Your task to perform on an android device: Go to Reddit.com Image 0: 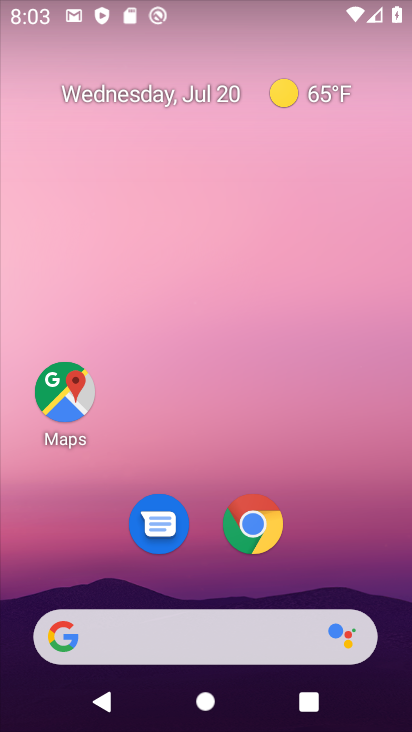
Step 0: click (265, 631)
Your task to perform on an android device: Go to Reddit.com Image 1: 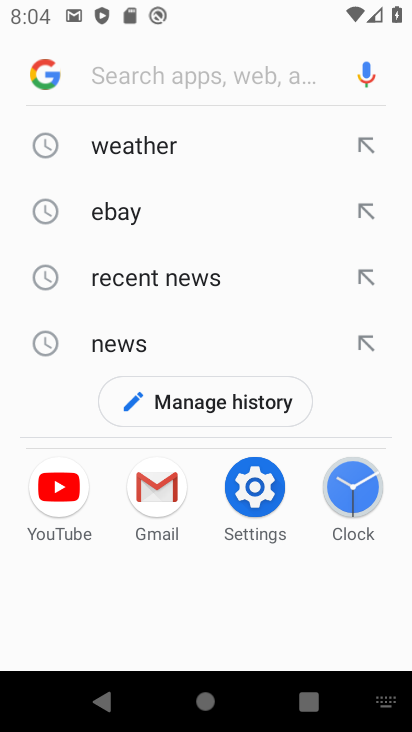
Step 1: type "reddit.com"
Your task to perform on an android device: Go to Reddit.com Image 2: 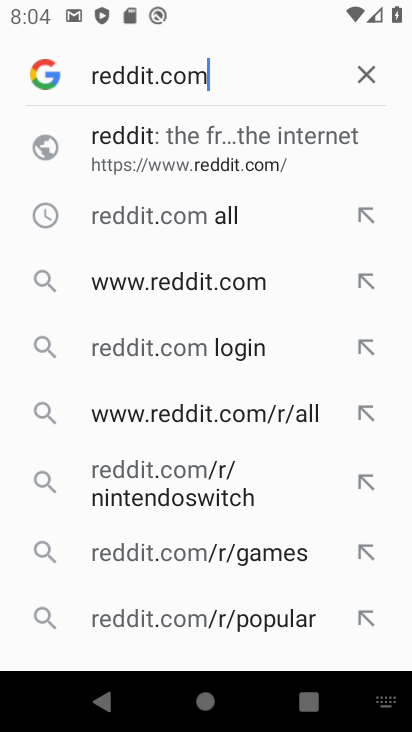
Step 2: click (240, 285)
Your task to perform on an android device: Go to Reddit.com Image 3: 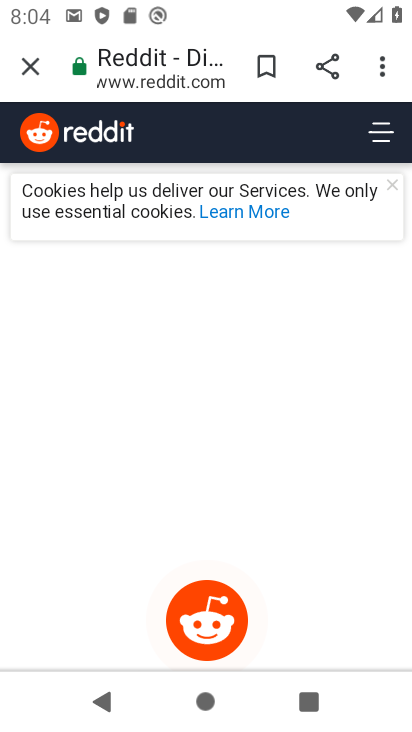
Step 3: click (391, 175)
Your task to perform on an android device: Go to Reddit.com Image 4: 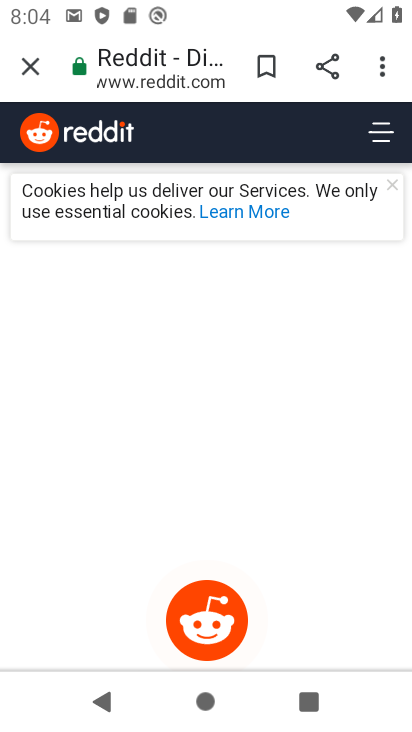
Step 4: click (391, 175)
Your task to perform on an android device: Go to Reddit.com Image 5: 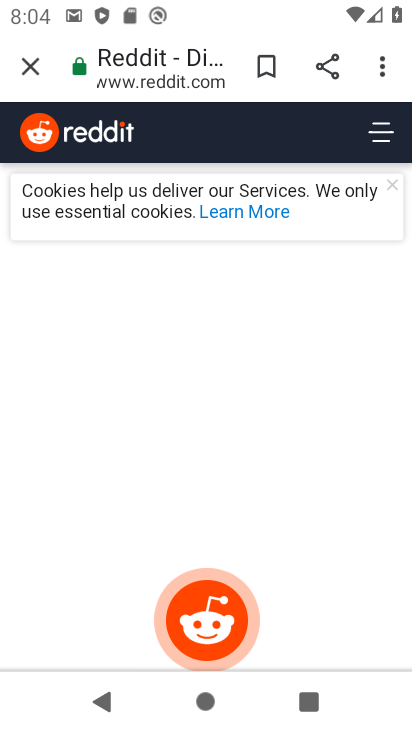
Step 5: click (391, 175)
Your task to perform on an android device: Go to Reddit.com Image 6: 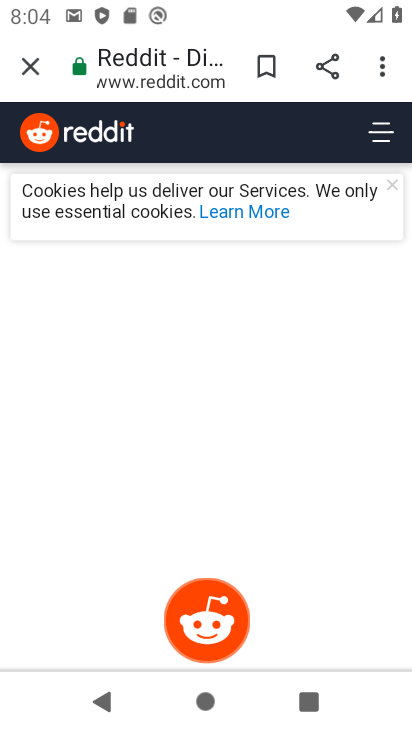
Step 6: click (221, 620)
Your task to perform on an android device: Go to Reddit.com Image 7: 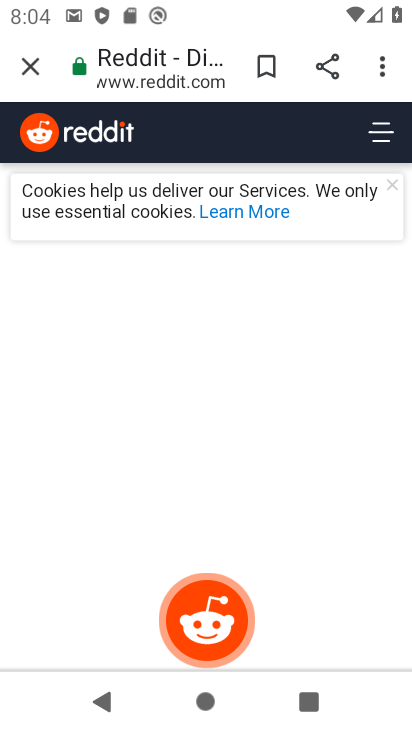
Step 7: click (221, 620)
Your task to perform on an android device: Go to Reddit.com Image 8: 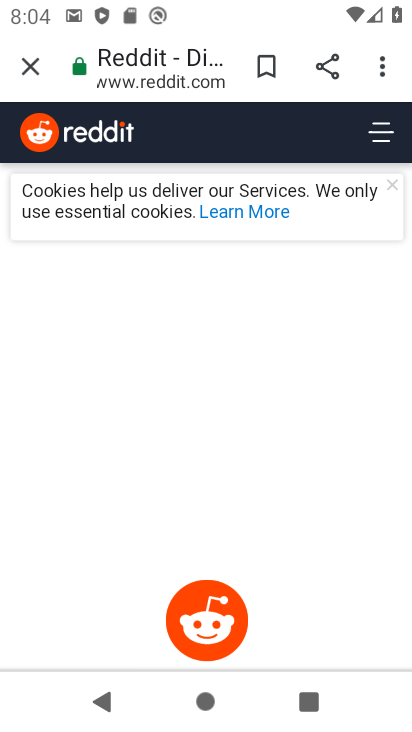
Step 8: drag from (276, 470) to (283, 248)
Your task to perform on an android device: Go to Reddit.com Image 9: 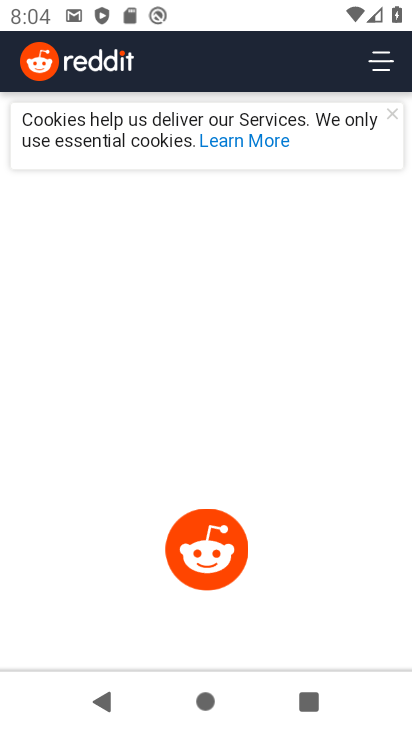
Step 9: drag from (283, 248) to (288, 475)
Your task to perform on an android device: Go to Reddit.com Image 10: 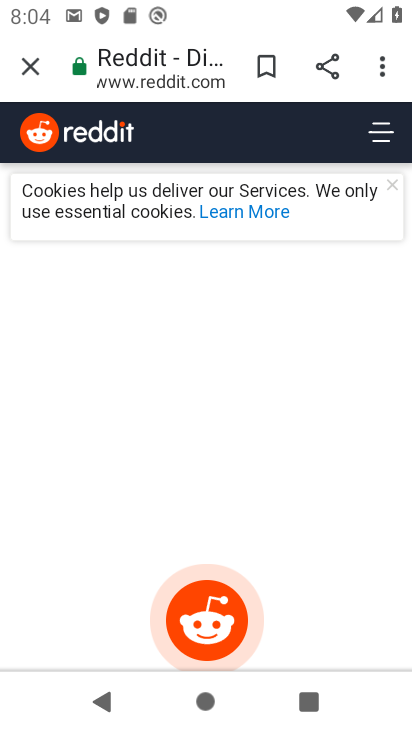
Step 10: click (215, 598)
Your task to perform on an android device: Go to Reddit.com Image 11: 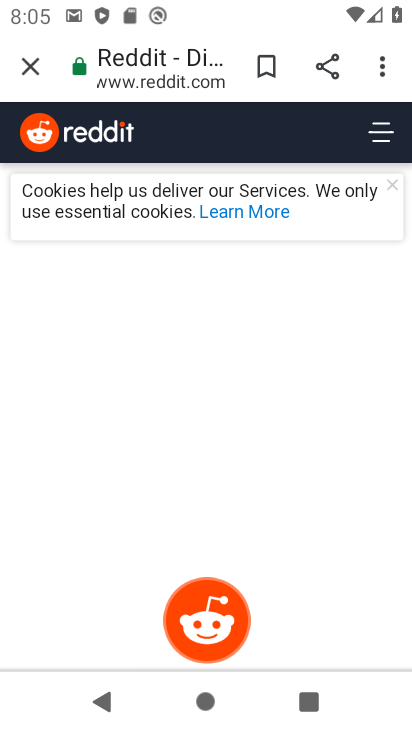
Step 11: click (392, 176)
Your task to perform on an android device: Go to Reddit.com Image 12: 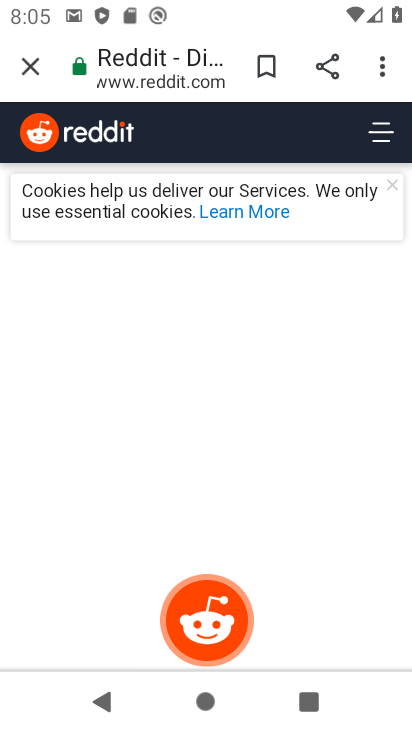
Step 12: click (392, 176)
Your task to perform on an android device: Go to Reddit.com Image 13: 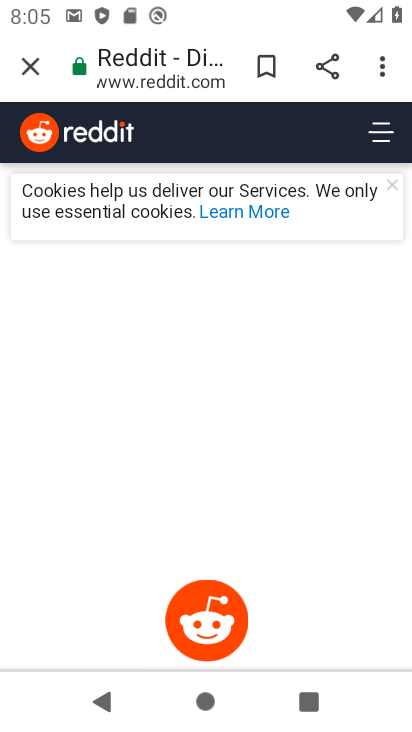
Step 13: task complete